Your task to perform on an android device: toggle priority inbox in the gmail app Image 0: 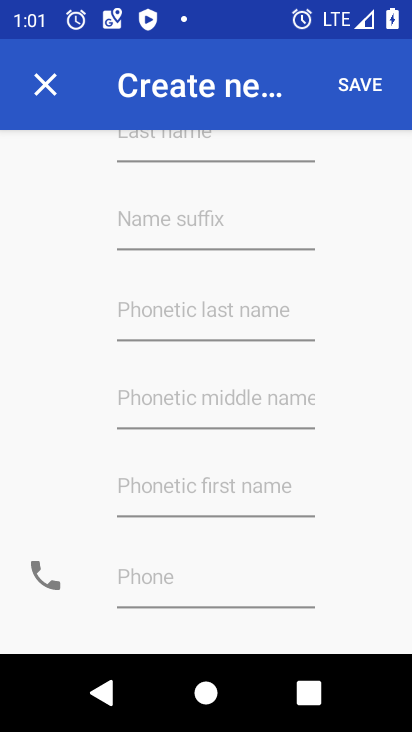
Step 0: press home button
Your task to perform on an android device: toggle priority inbox in the gmail app Image 1: 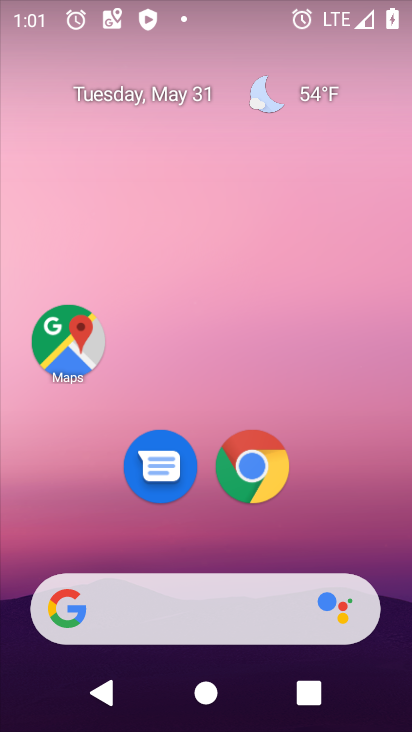
Step 1: drag from (155, 600) to (136, 4)
Your task to perform on an android device: toggle priority inbox in the gmail app Image 2: 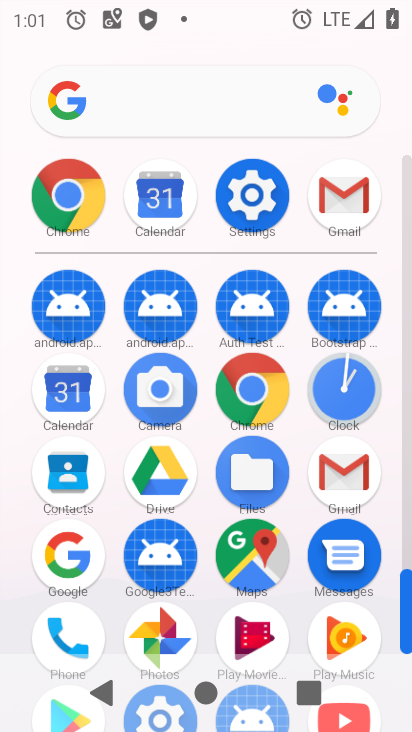
Step 2: click (355, 203)
Your task to perform on an android device: toggle priority inbox in the gmail app Image 3: 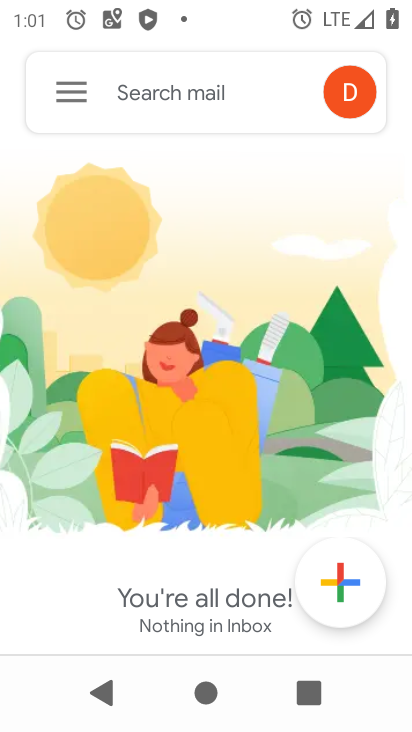
Step 3: click (58, 93)
Your task to perform on an android device: toggle priority inbox in the gmail app Image 4: 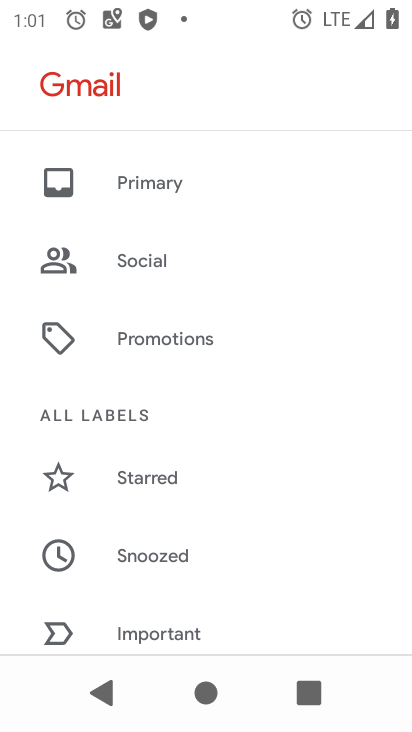
Step 4: drag from (201, 607) to (110, 21)
Your task to perform on an android device: toggle priority inbox in the gmail app Image 5: 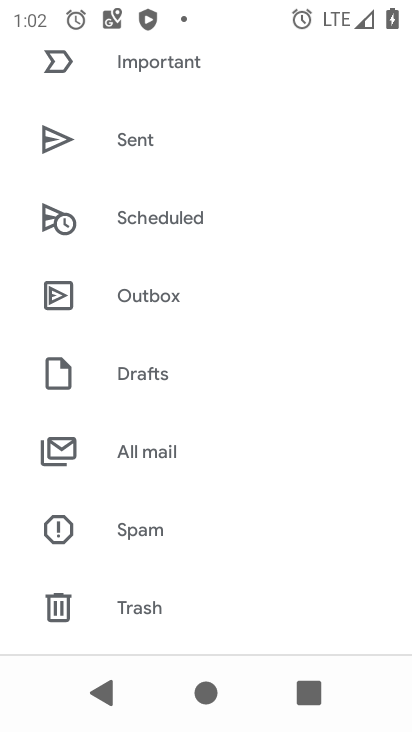
Step 5: drag from (195, 545) to (73, 0)
Your task to perform on an android device: toggle priority inbox in the gmail app Image 6: 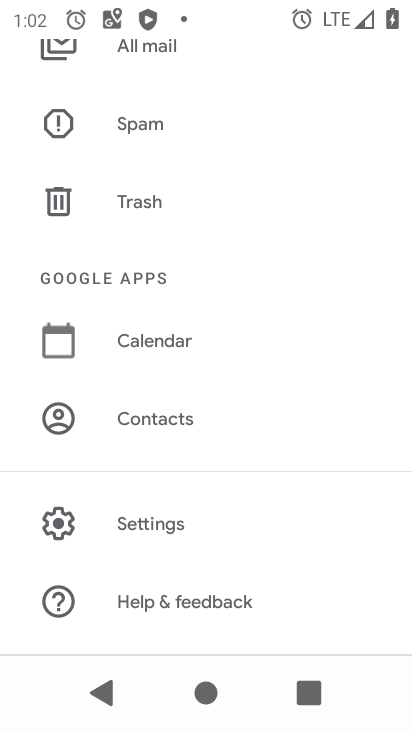
Step 6: click (181, 522)
Your task to perform on an android device: toggle priority inbox in the gmail app Image 7: 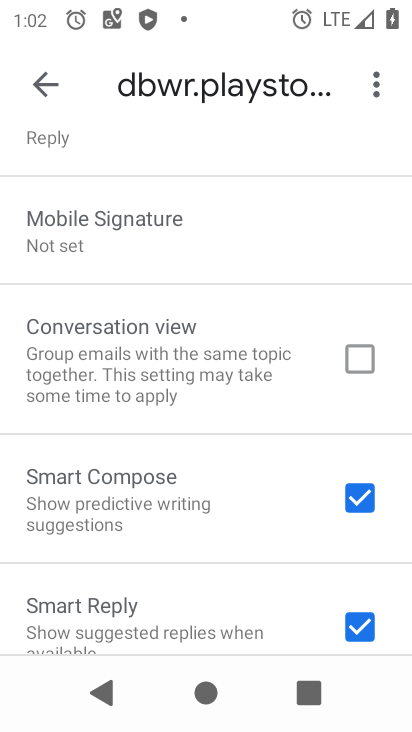
Step 7: drag from (228, 538) to (231, 615)
Your task to perform on an android device: toggle priority inbox in the gmail app Image 8: 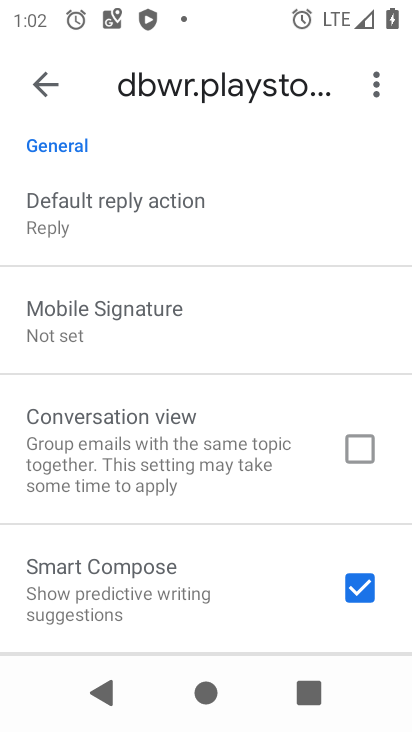
Step 8: drag from (165, 339) to (148, 629)
Your task to perform on an android device: toggle priority inbox in the gmail app Image 9: 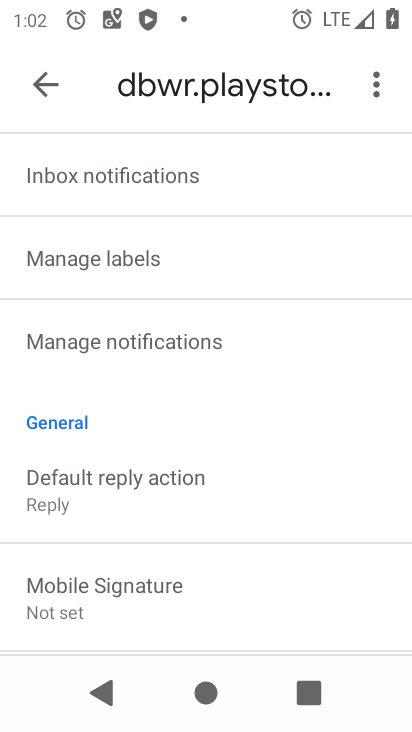
Step 9: drag from (212, 363) to (193, 730)
Your task to perform on an android device: toggle priority inbox in the gmail app Image 10: 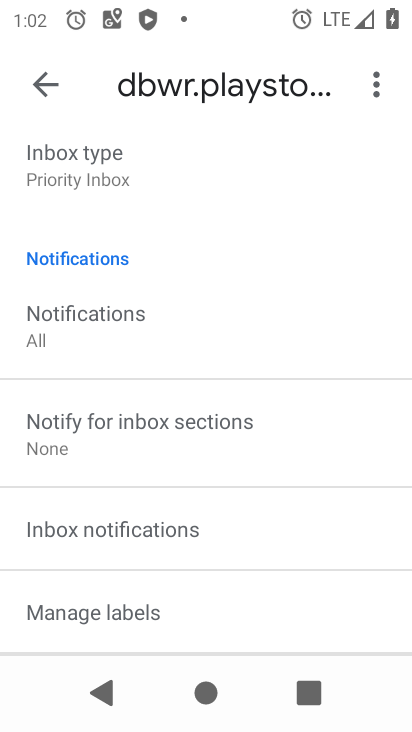
Step 10: click (147, 184)
Your task to perform on an android device: toggle priority inbox in the gmail app Image 11: 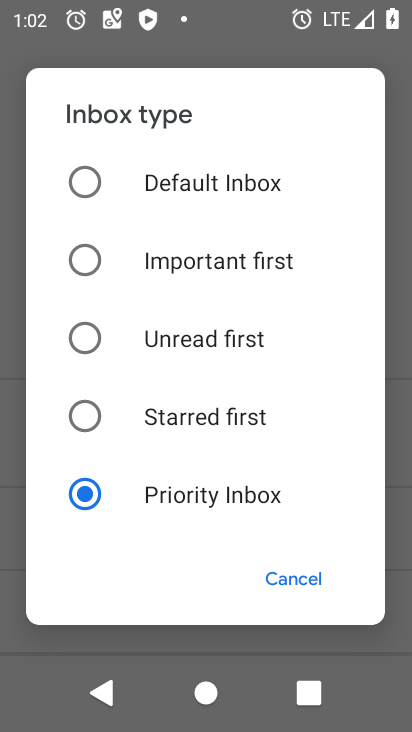
Step 11: click (172, 200)
Your task to perform on an android device: toggle priority inbox in the gmail app Image 12: 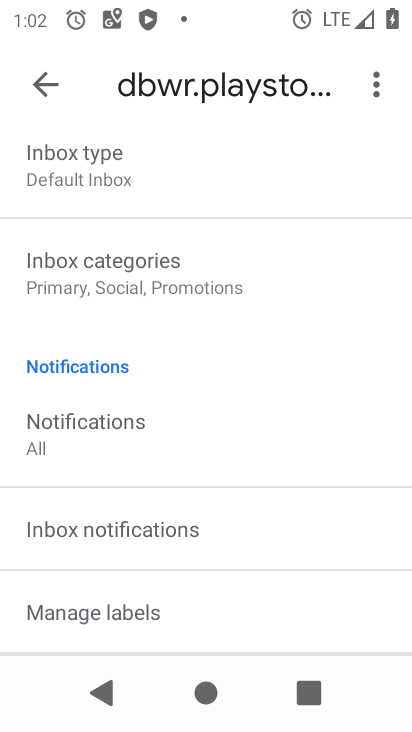
Step 12: task complete